Your task to perform on an android device: What's the weather going to be tomorrow? Image 0: 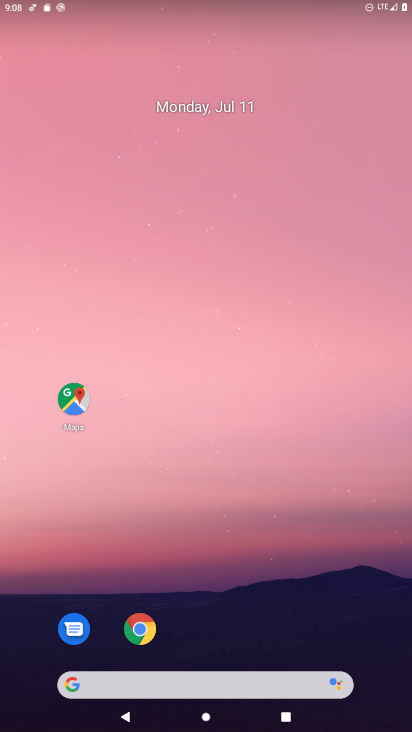
Step 0: click (144, 678)
Your task to perform on an android device: What's the weather going to be tomorrow? Image 1: 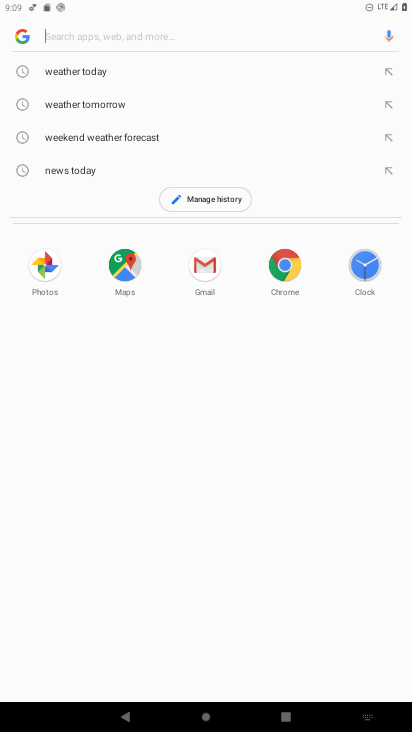
Step 1: click (117, 103)
Your task to perform on an android device: What's the weather going to be tomorrow? Image 2: 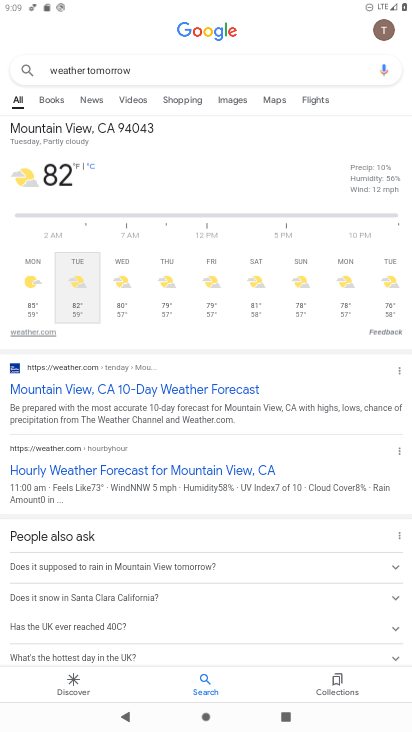
Step 2: task complete